Your task to perform on an android device: Is it going to rain tomorrow? Image 0: 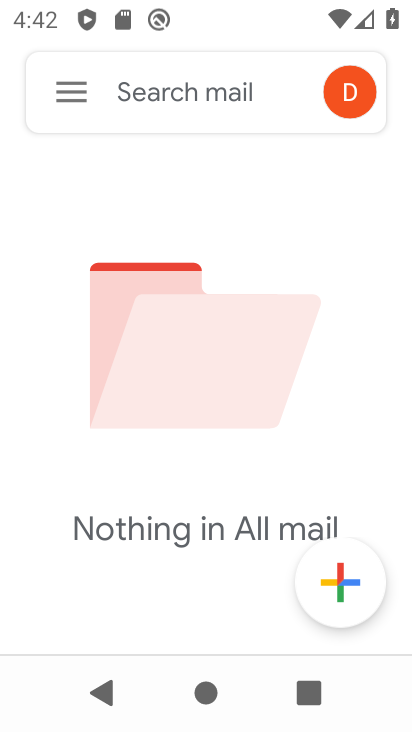
Step 0: press home button
Your task to perform on an android device: Is it going to rain tomorrow? Image 1: 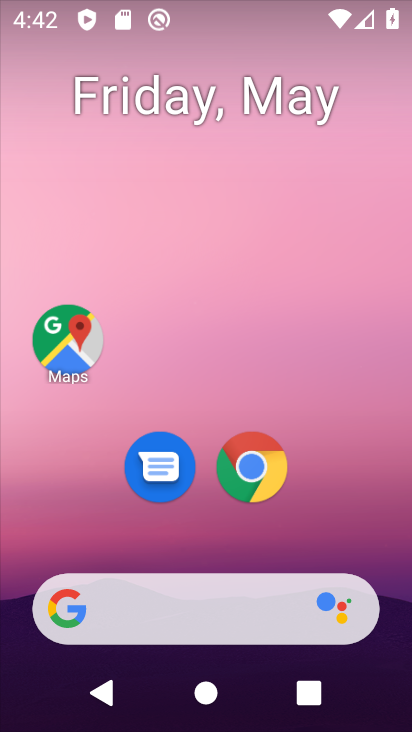
Step 1: drag from (324, 445) to (311, 25)
Your task to perform on an android device: Is it going to rain tomorrow? Image 2: 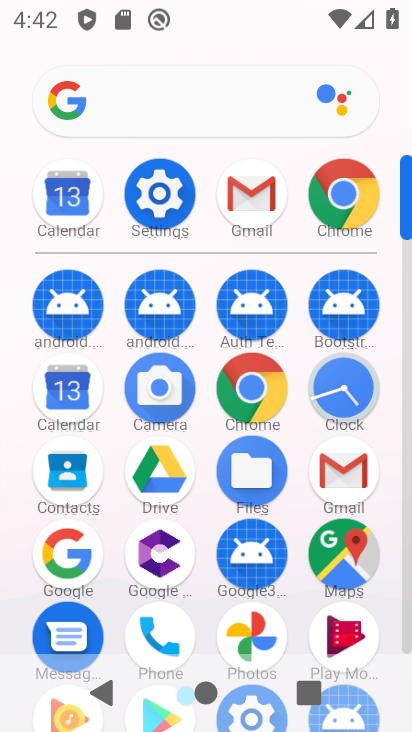
Step 2: click (233, 387)
Your task to perform on an android device: Is it going to rain tomorrow? Image 3: 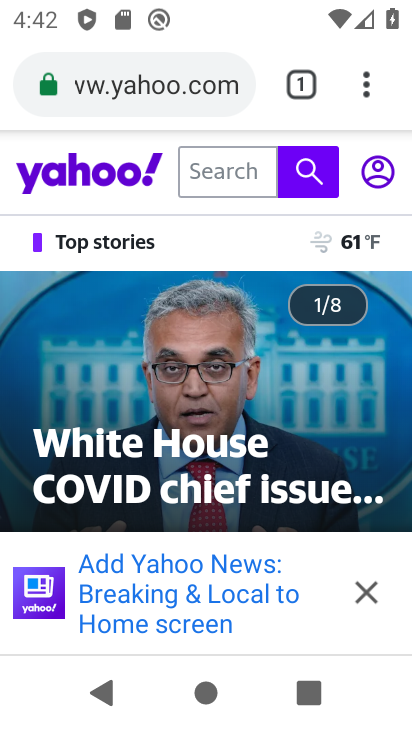
Step 3: click (174, 84)
Your task to perform on an android device: Is it going to rain tomorrow? Image 4: 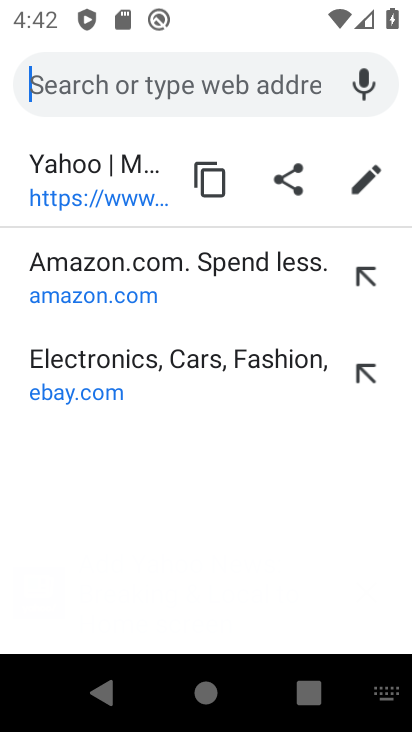
Step 4: type "weather"
Your task to perform on an android device: Is it going to rain tomorrow? Image 5: 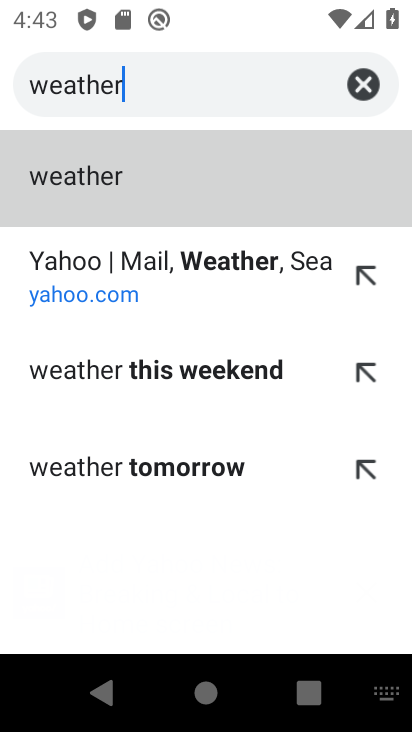
Step 5: click (106, 184)
Your task to perform on an android device: Is it going to rain tomorrow? Image 6: 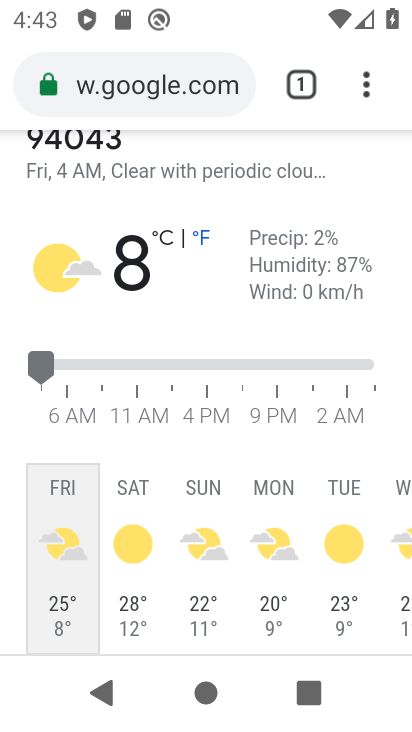
Step 6: click (141, 535)
Your task to perform on an android device: Is it going to rain tomorrow? Image 7: 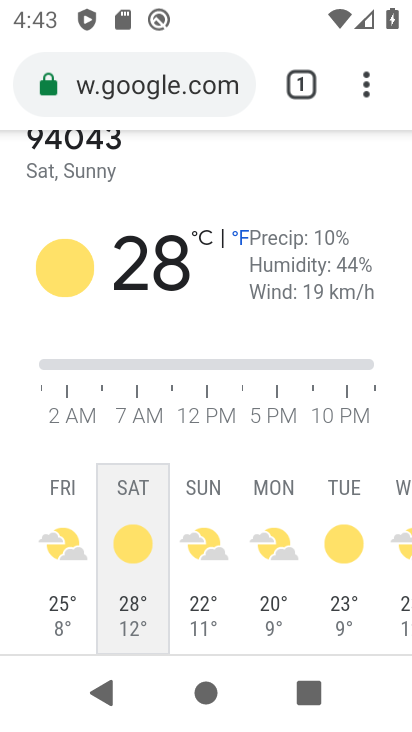
Step 7: task complete